Your task to perform on an android device: Open battery settings Image 0: 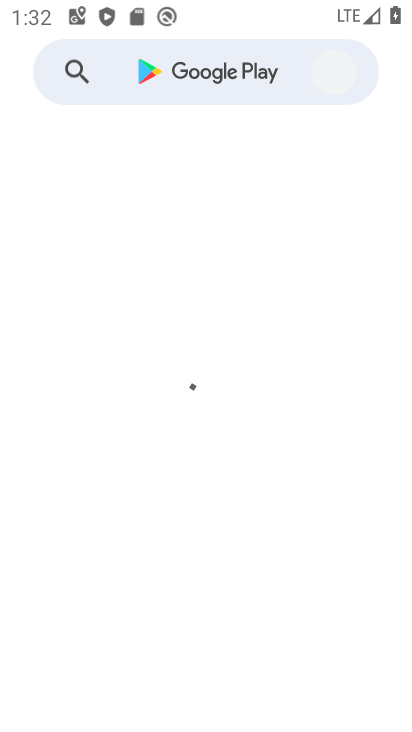
Step 0: drag from (381, 561) to (392, 381)
Your task to perform on an android device: Open battery settings Image 1: 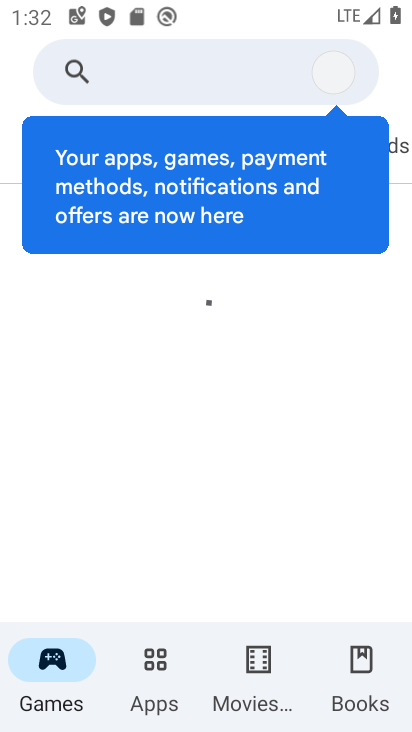
Step 1: press home button
Your task to perform on an android device: Open battery settings Image 2: 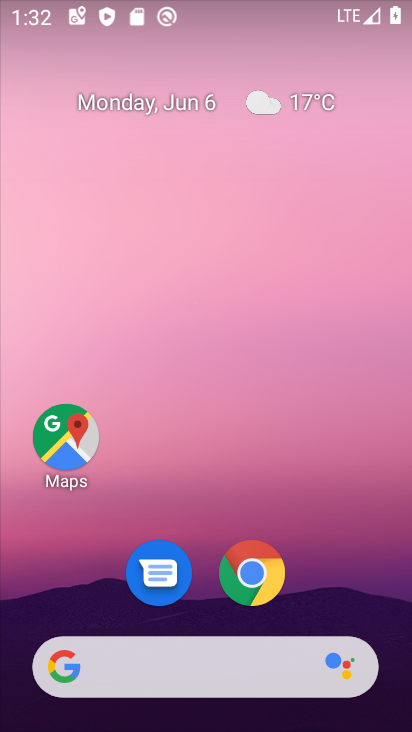
Step 2: drag from (361, 560) to (336, 25)
Your task to perform on an android device: Open battery settings Image 3: 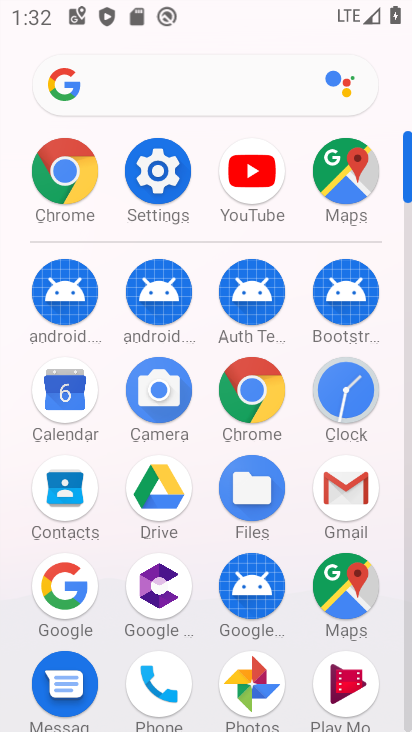
Step 3: click (163, 183)
Your task to perform on an android device: Open battery settings Image 4: 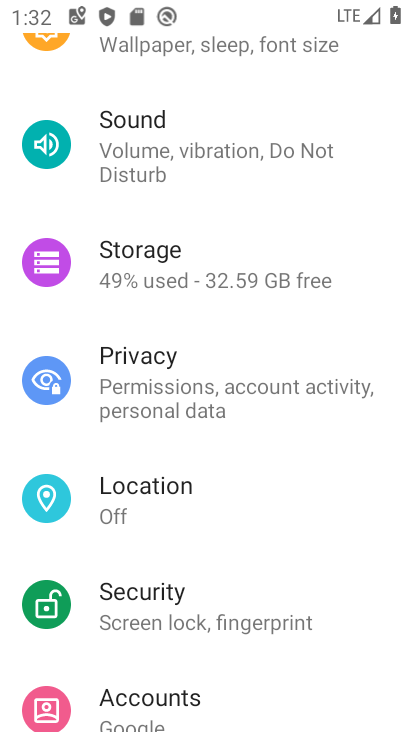
Step 4: drag from (352, 208) to (330, 392)
Your task to perform on an android device: Open battery settings Image 5: 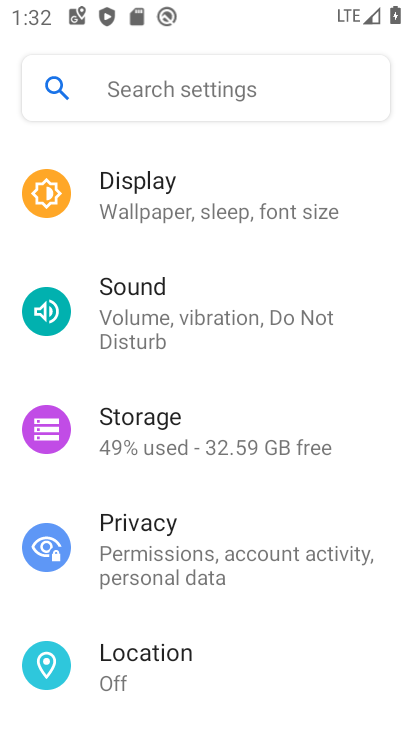
Step 5: drag from (361, 187) to (362, 379)
Your task to perform on an android device: Open battery settings Image 6: 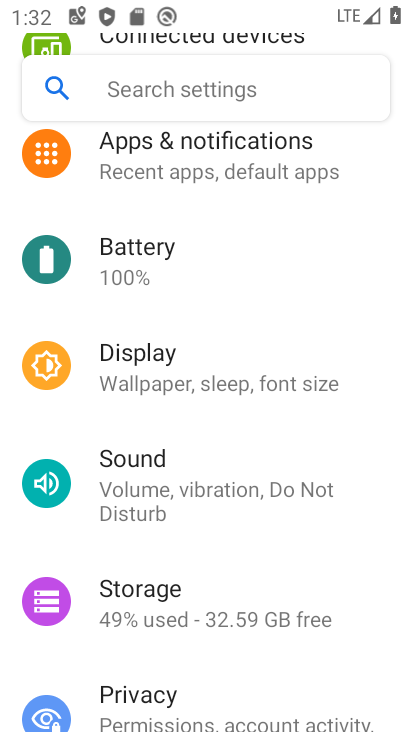
Step 6: drag from (370, 169) to (370, 365)
Your task to perform on an android device: Open battery settings Image 7: 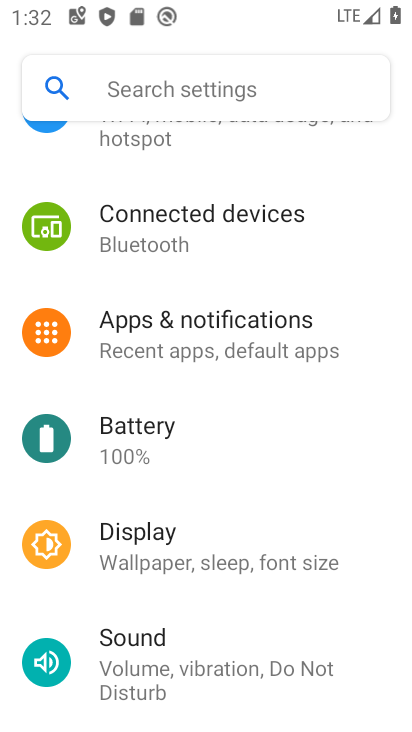
Step 7: click (186, 455)
Your task to perform on an android device: Open battery settings Image 8: 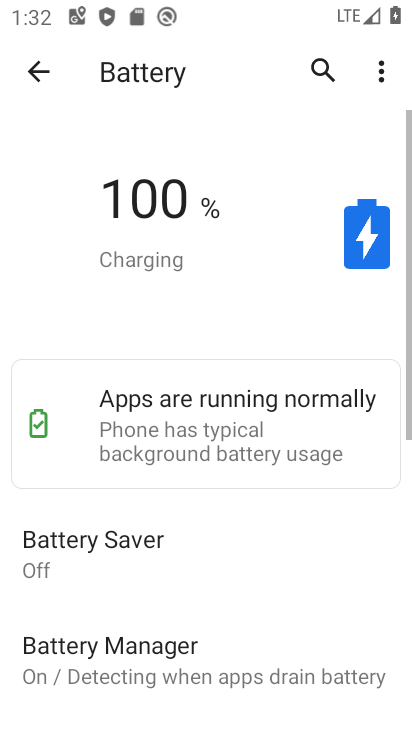
Step 8: task complete